Your task to perform on an android device: Open calendar and show me the first week of next month Image 0: 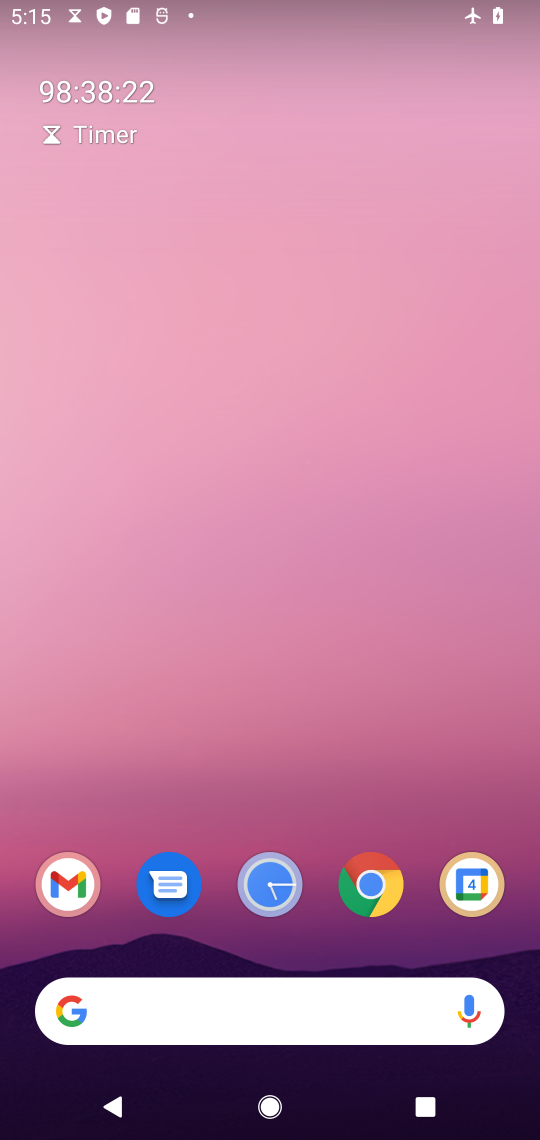
Step 0: drag from (173, 988) to (212, 189)
Your task to perform on an android device: Open calendar and show me the first week of next month Image 1: 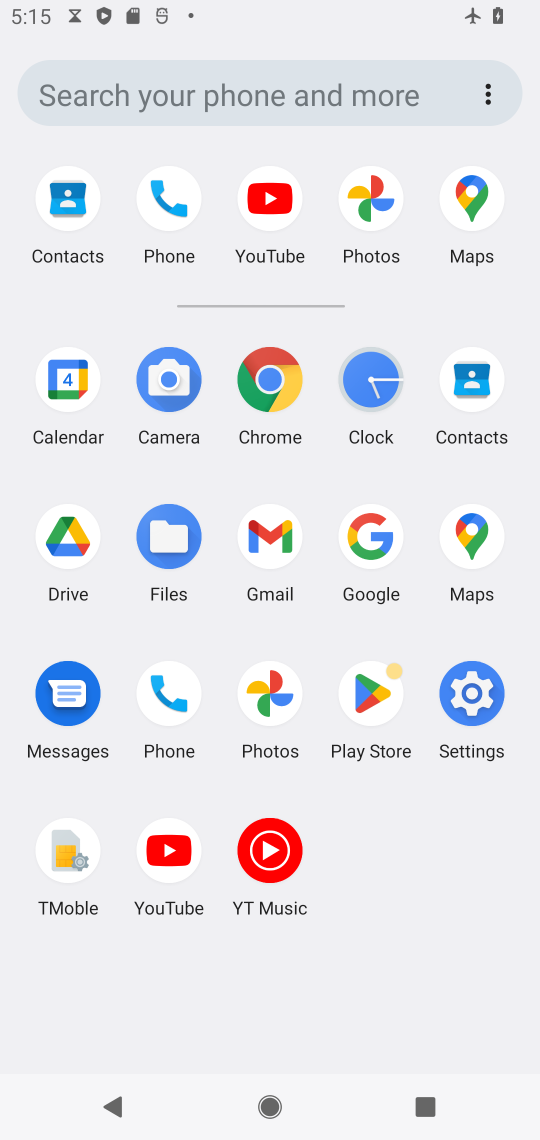
Step 1: click (83, 368)
Your task to perform on an android device: Open calendar and show me the first week of next month Image 2: 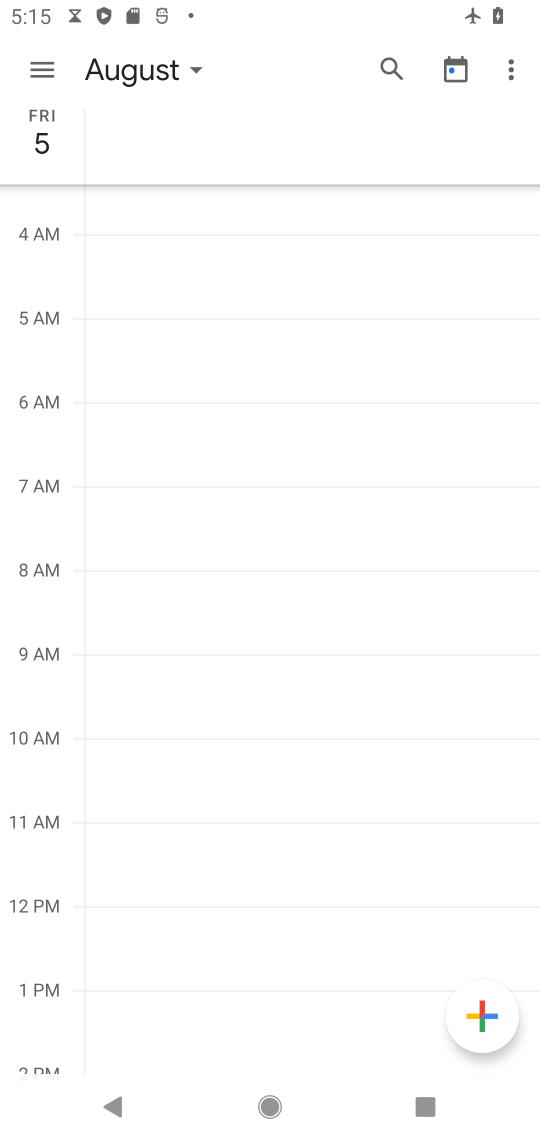
Step 2: click (57, 66)
Your task to perform on an android device: Open calendar and show me the first week of next month Image 3: 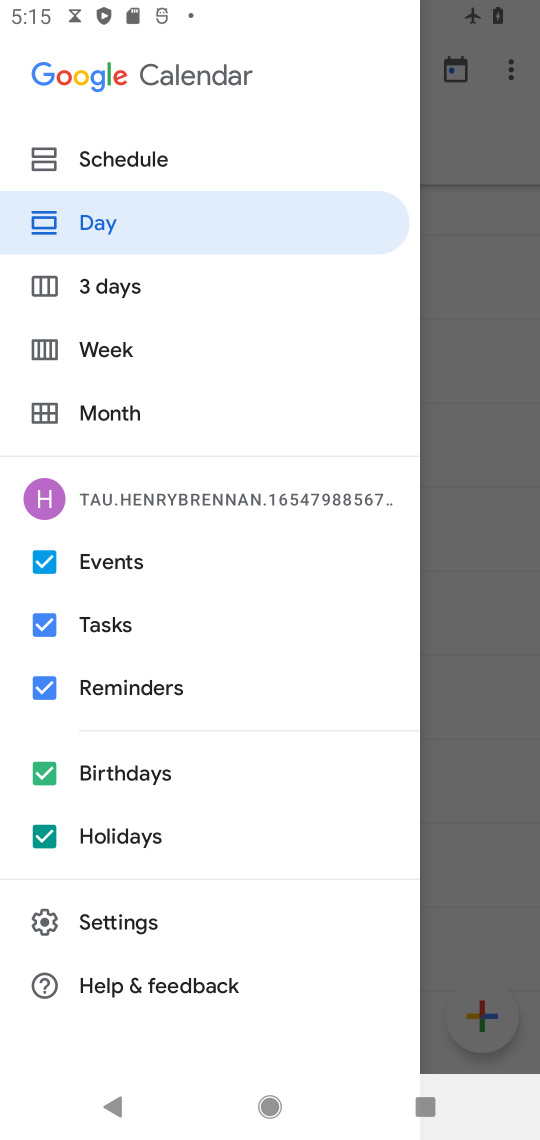
Step 3: click (123, 349)
Your task to perform on an android device: Open calendar and show me the first week of next month Image 4: 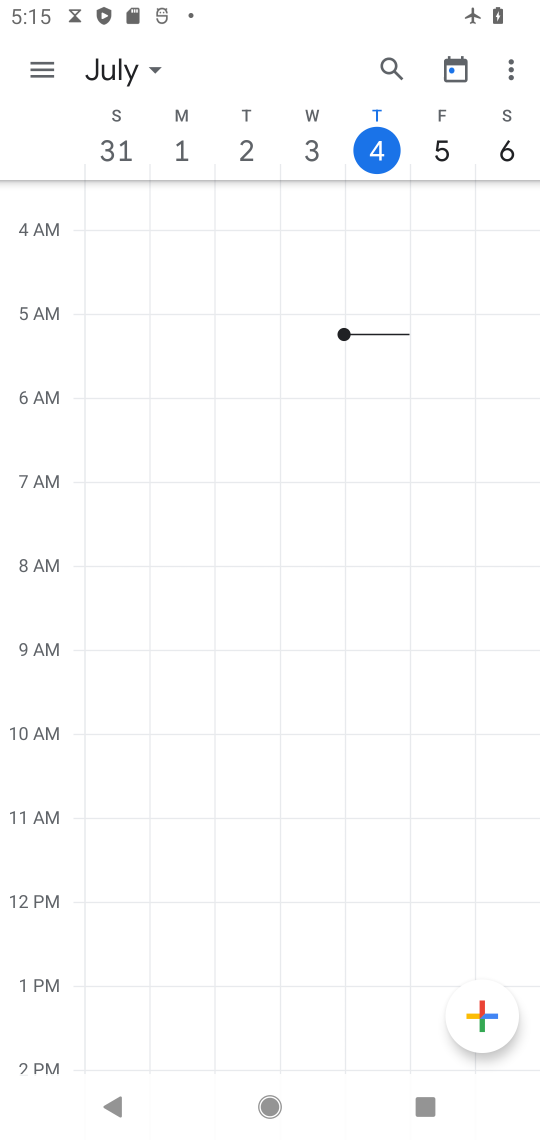
Step 4: task complete